Your task to perform on an android device: Open the calendar app Image 0: 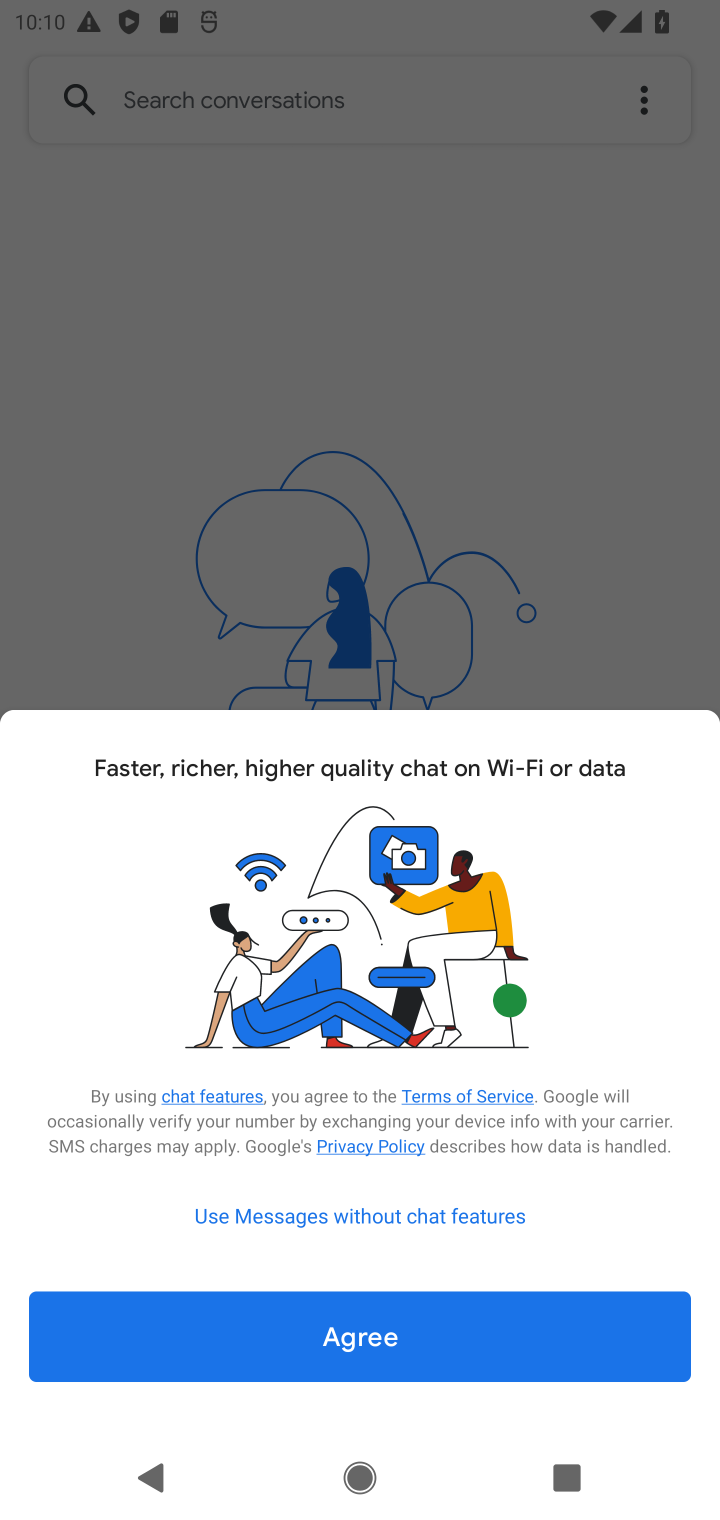
Step 0: press home button
Your task to perform on an android device: Open the calendar app Image 1: 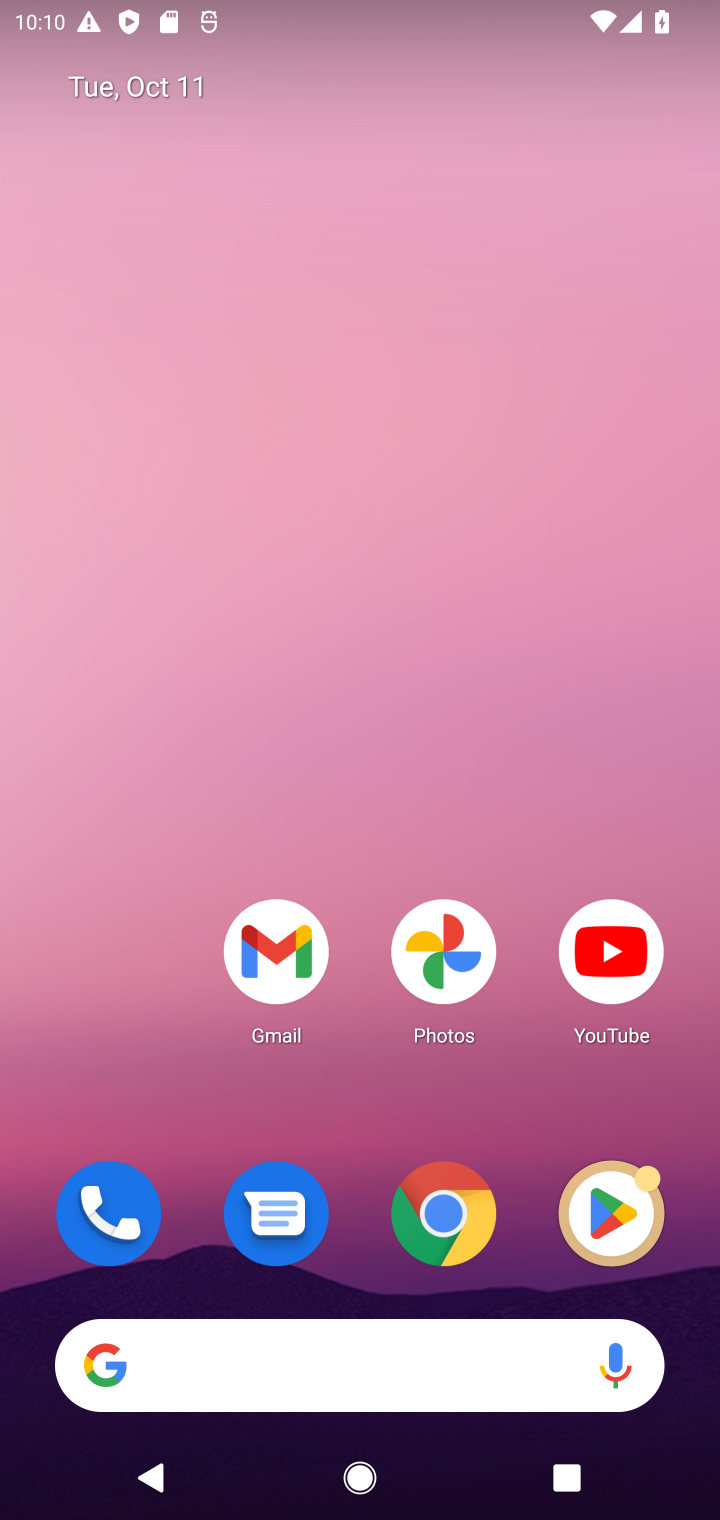
Step 1: drag from (503, 855) to (670, 0)
Your task to perform on an android device: Open the calendar app Image 2: 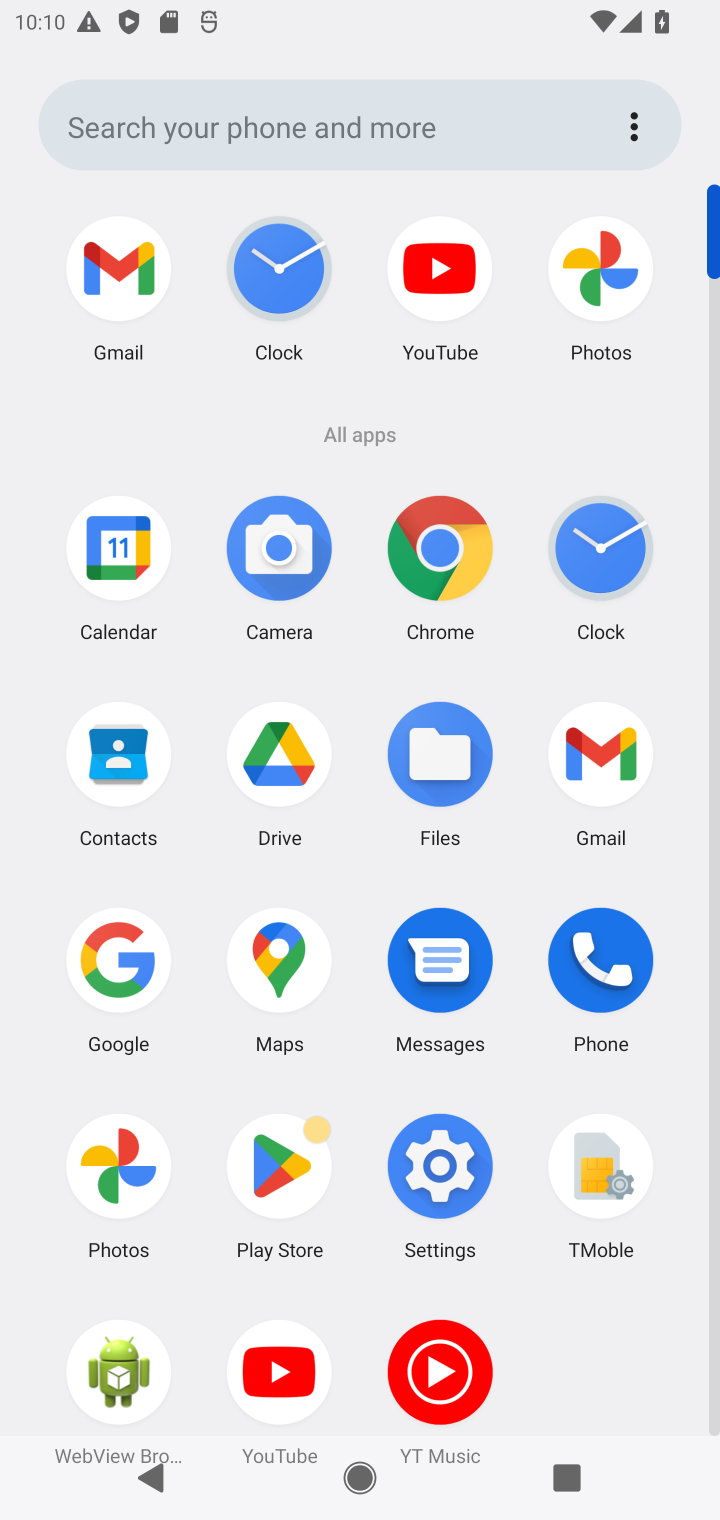
Step 2: click (104, 462)
Your task to perform on an android device: Open the calendar app Image 3: 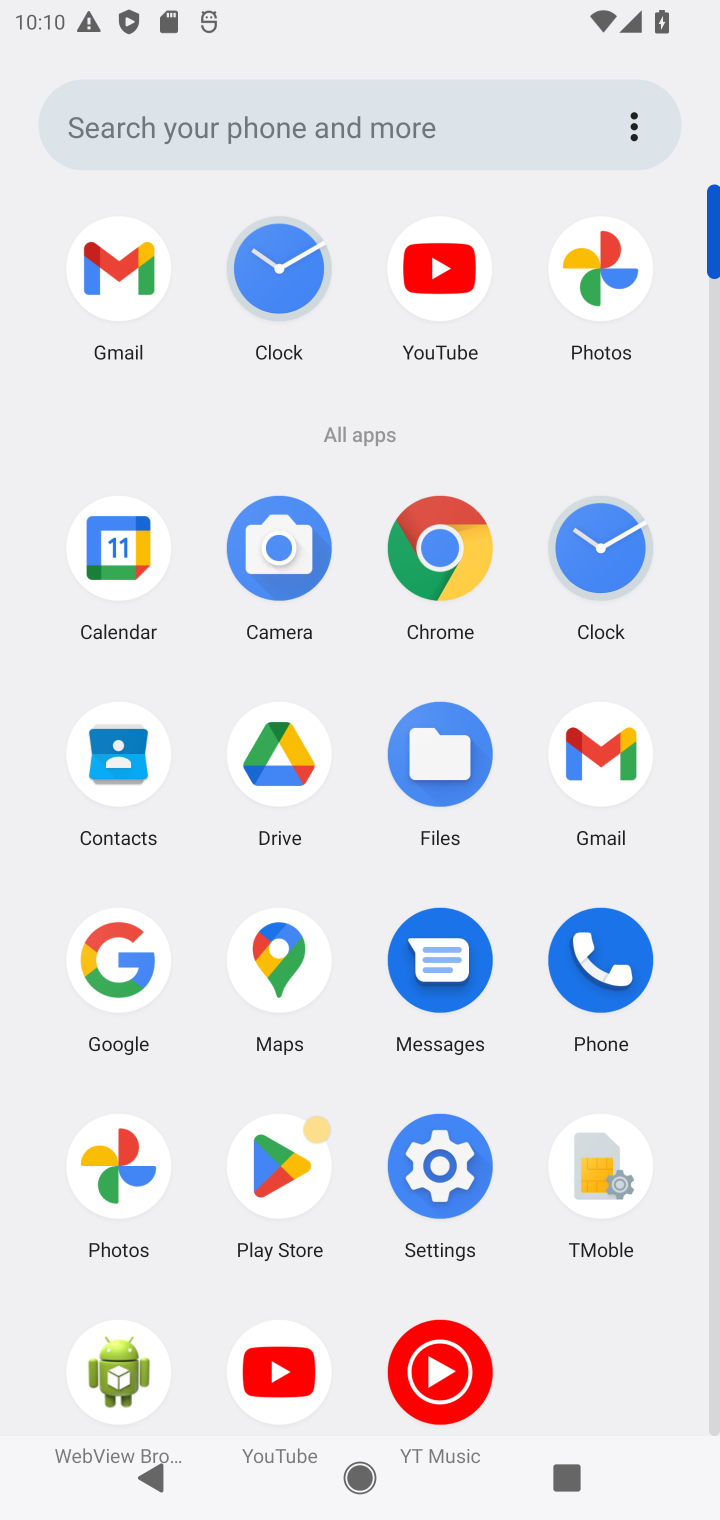
Step 3: click (131, 533)
Your task to perform on an android device: Open the calendar app Image 4: 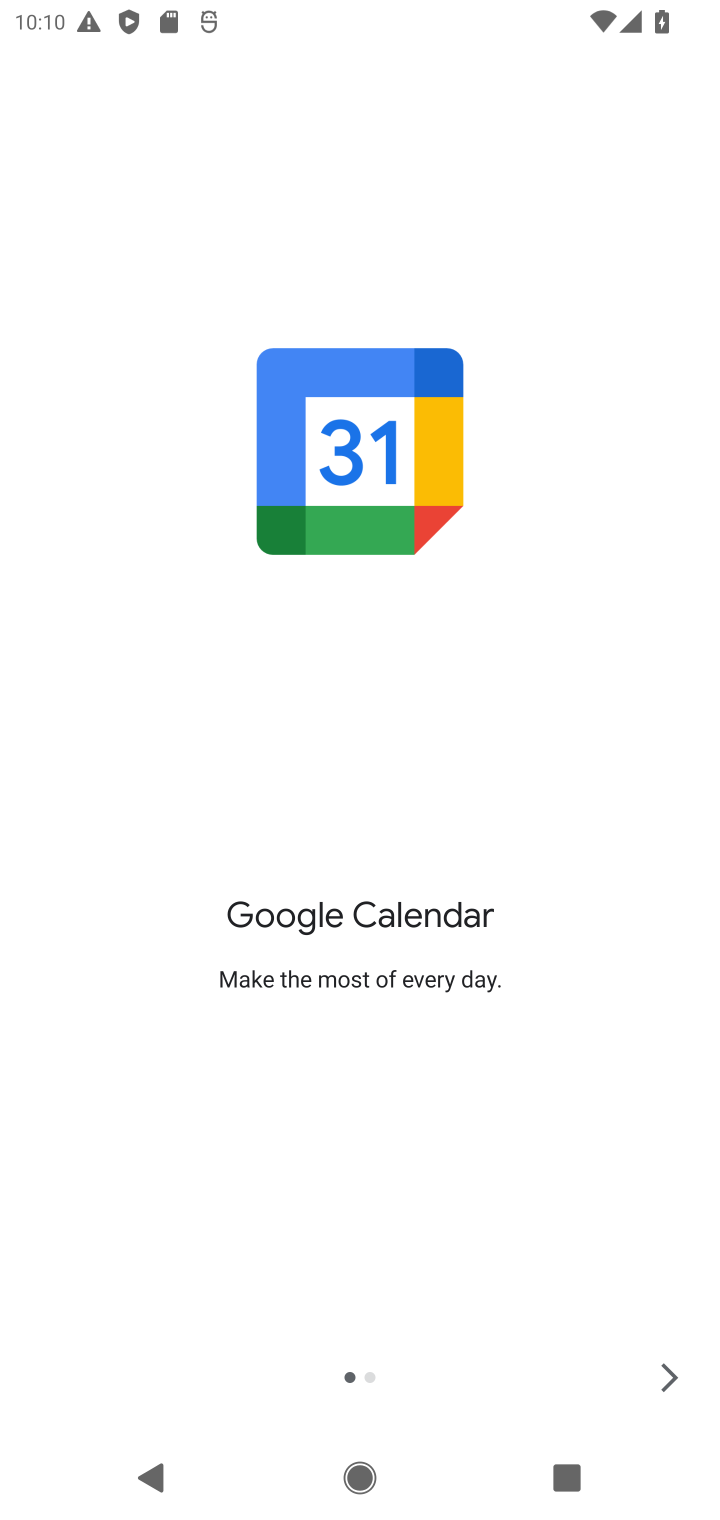
Step 4: click (669, 1394)
Your task to perform on an android device: Open the calendar app Image 5: 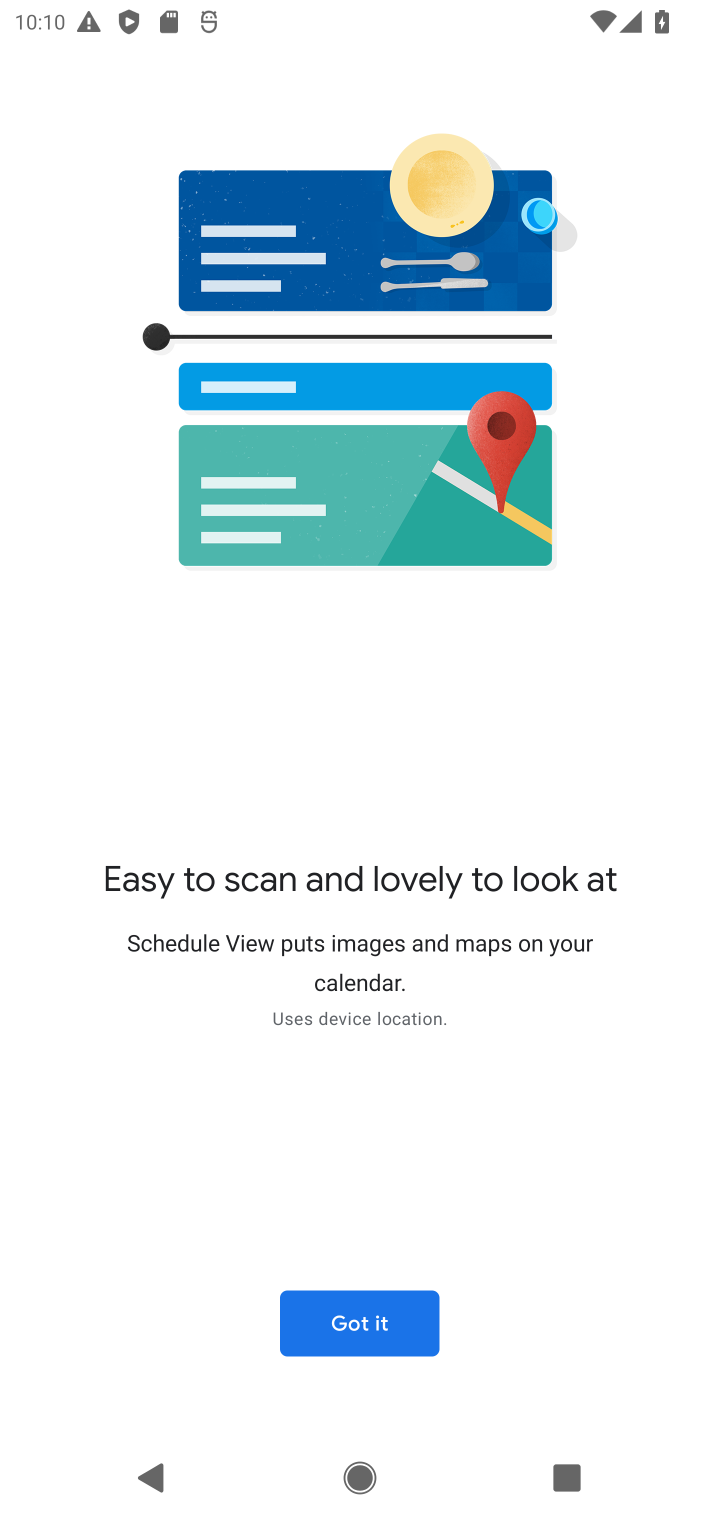
Step 5: click (346, 1319)
Your task to perform on an android device: Open the calendar app Image 6: 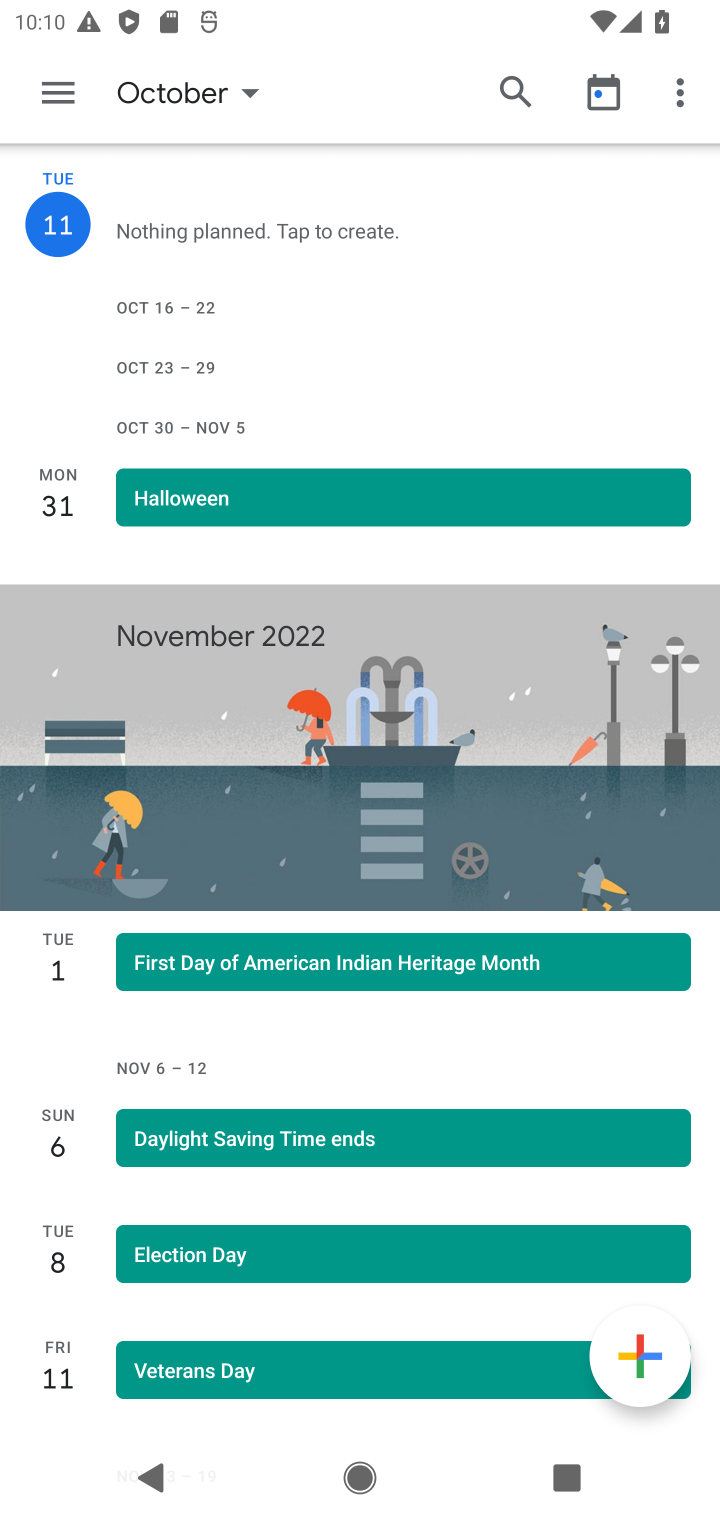
Step 6: task complete